Your task to perform on an android device: change text size in settings app Image 0: 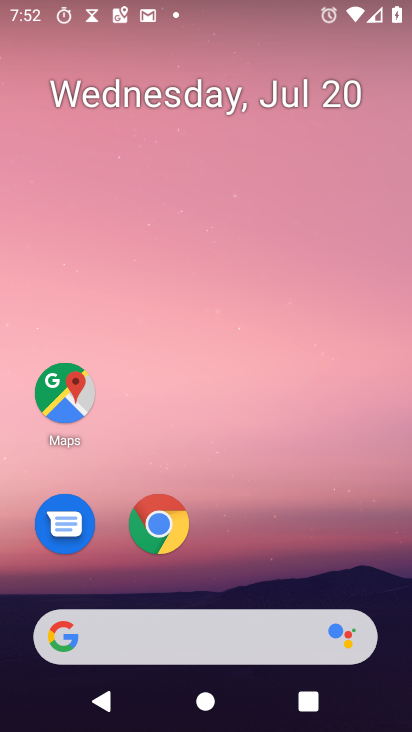
Step 0: drag from (189, 643) to (364, 387)
Your task to perform on an android device: change text size in settings app Image 1: 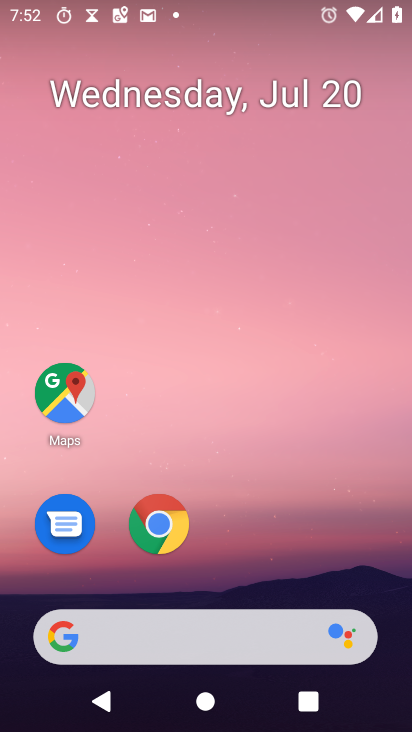
Step 1: drag from (206, 640) to (294, 113)
Your task to perform on an android device: change text size in settings app Image 2: 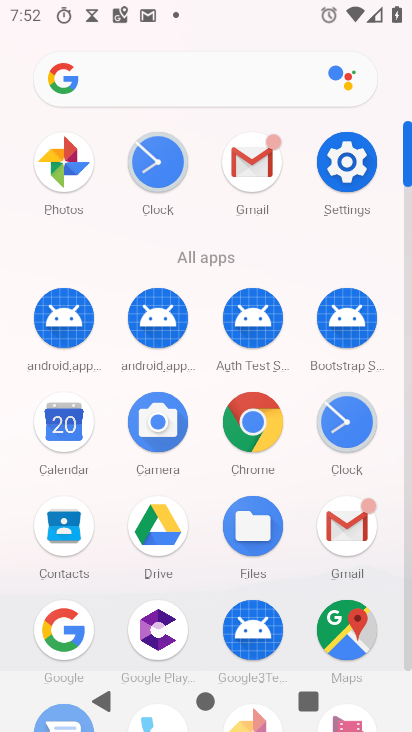
Step 2: click (358, 165)
Your task to perform on an android device: change text size in settings app Image 3: 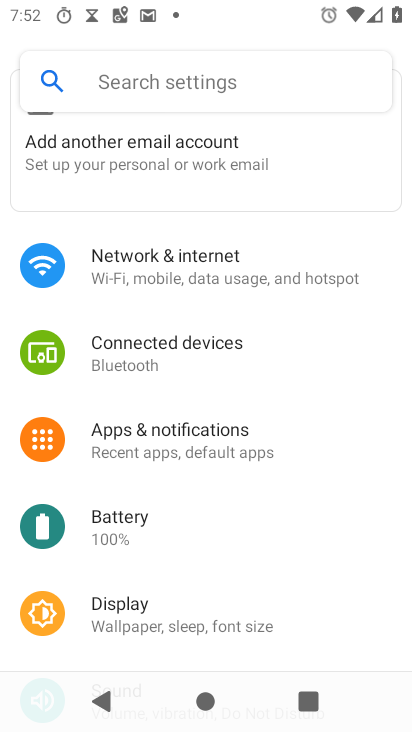
Step 3: drag from (222, 521) to (312, 118)
Your task to perform on an android device: change text size in settings app Image 4: 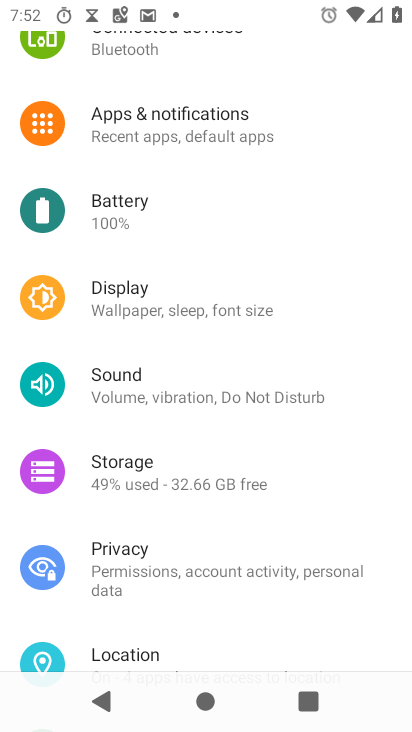
Step 4: click (144, 292)
Your task to perform on an android device: change text size in settings app Image 5: 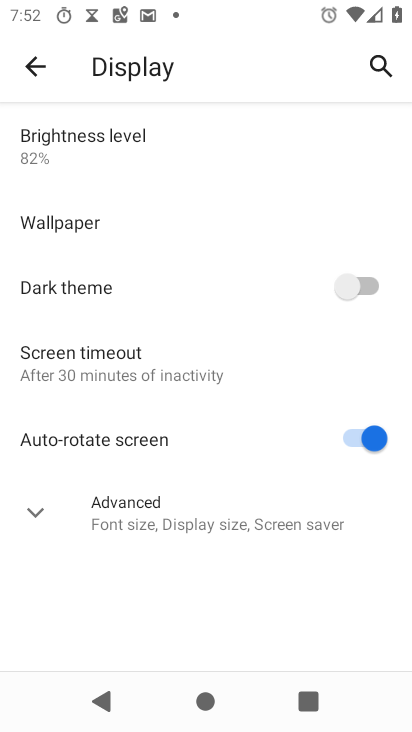
Step 5: click (101, 495)
Your task to perform on an android device: change text size in settings app Image 6: 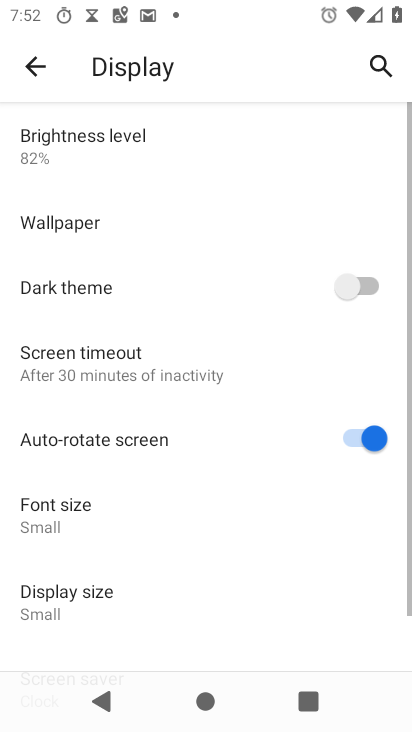
Step 6: click (79, 500)
Your task to perform on an android device: change text size in settings app Image 7: 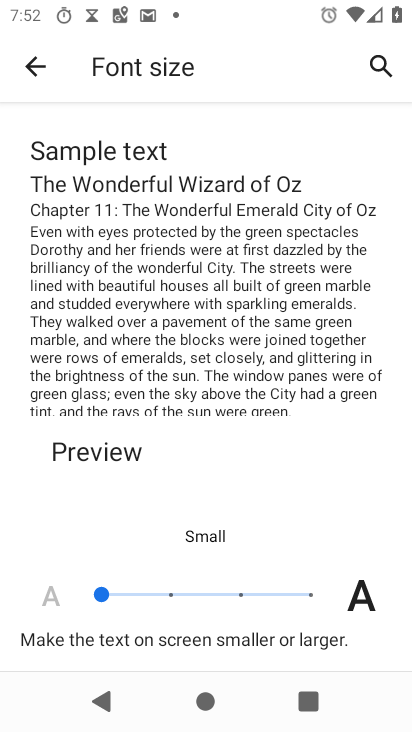
Step 7: click (166, 591)
Your task to perform on an android device: change text size in settings app Image 8: 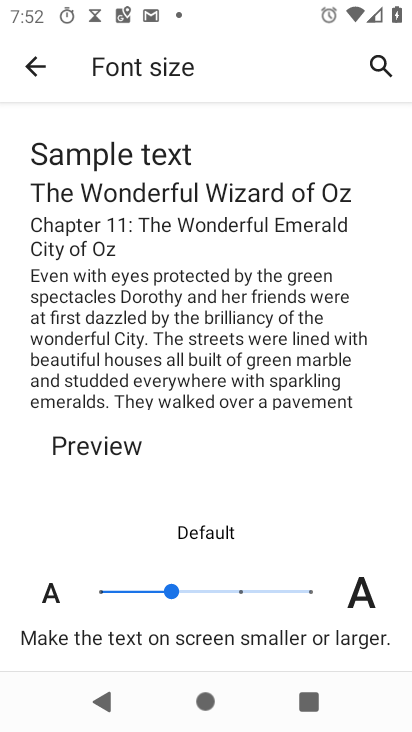
Step 8: task complete